Your task to perform on an android device: Show me productivity apps on the Play Store Image 0: 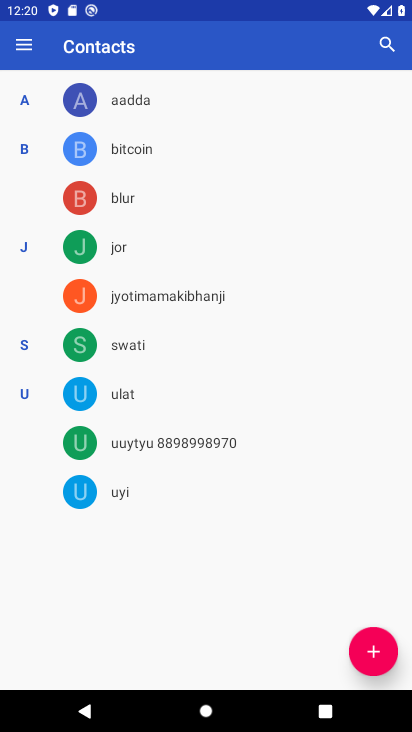
Step 0: press home button
Your task to perform on an android device: Show me productivity apps on the Play Store Image 1: 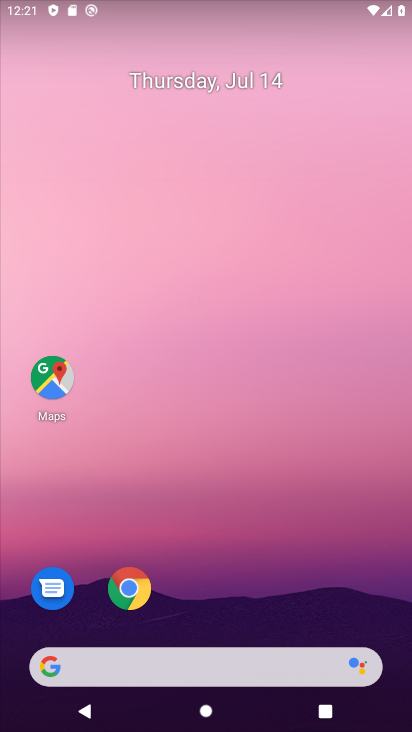
Step 1: drag from (213, 656) to (285, 109)
Your task to perform on an android device: Show me productivity apps on the Play Store Image 2: 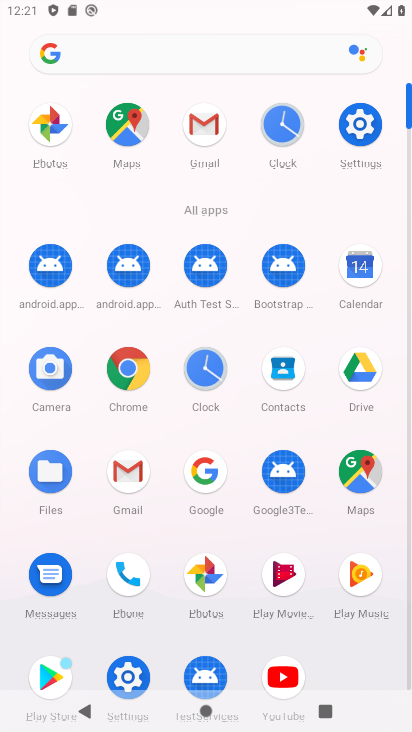
Step 2: click (53, 674)
Your task to perform on an android device: Show me productivity apps on the Play Store Image 3: 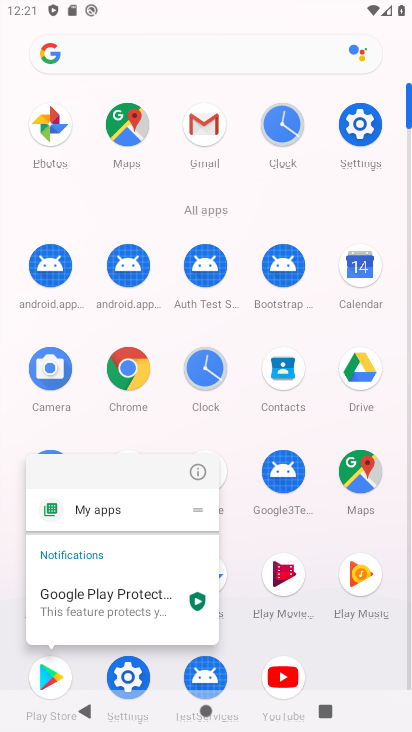
Step 3: click (39, 675)
Your task to perform on an android device: Show me productivity apps on the Play Store Image 4: 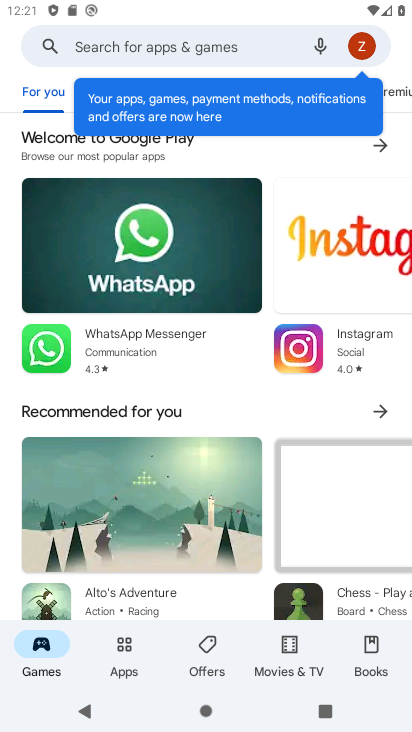
Step 4: click (129, 646)
Your task to perform on an android device: Show me productivity apps on the Play Store Image 5: 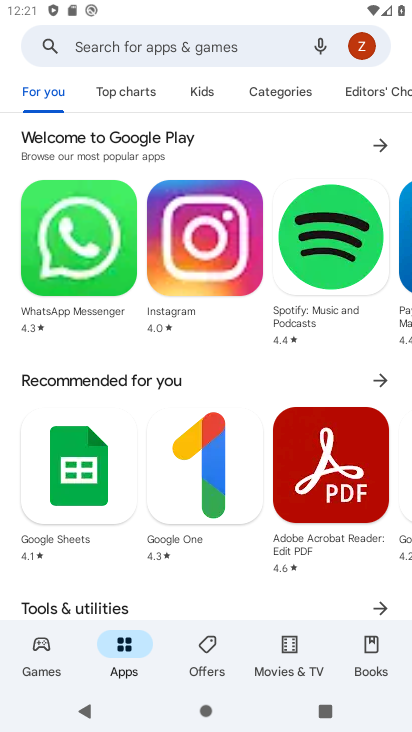
Step 5: click (285, 91)
Your task to perform on an android device: Show me productivity apps on the Play Store Image 6: 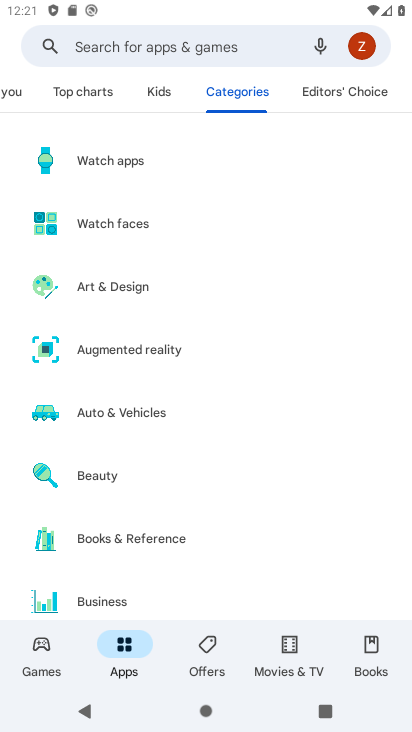
Step 6: drag from (211, 535) to (286, 126)
Your task to perform on an android device: Show me productivity apps on the Play Store Image 7: 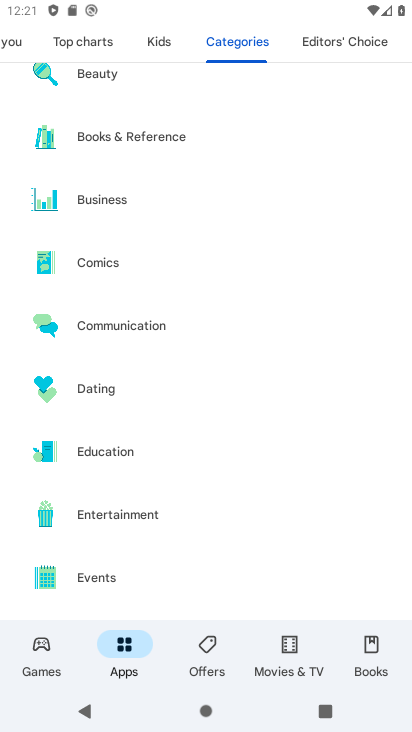
Step 7: drag from (223, 519) to (291, 41)
Your task to perform on an android device: Show me productivity apps on the Play Store Image 8: 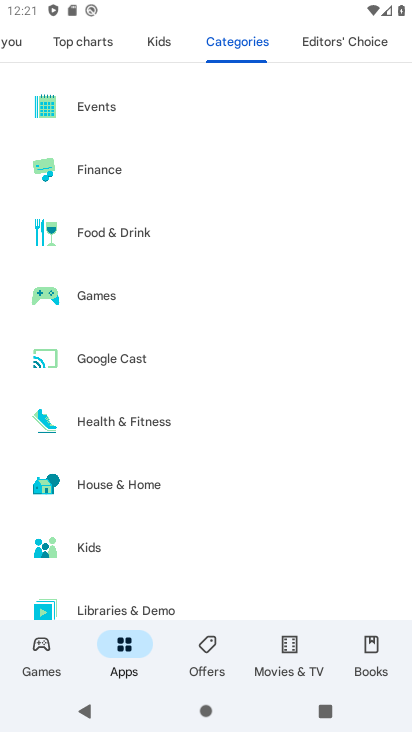
Step 8: drag from (265, 476) to (314, 43)
Your task to perform on an android device: Show me productivity apps on the Play Store Image 9: 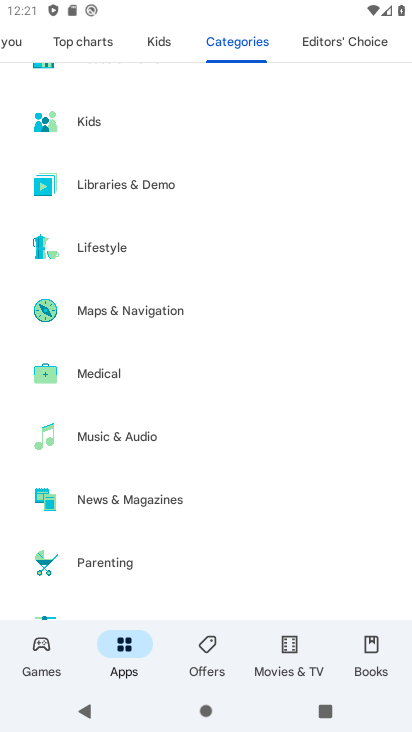
Step 9: drag from (276, 481) to (328, 58)
Your task to perform on an android device: Show me productivity apps on the Play Store Image 10: 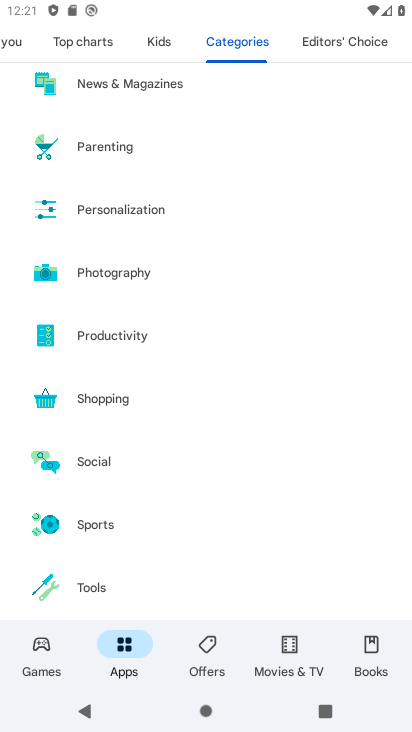
Step 10: click (126, 333)
Your task to perform on an android device: Show me productivity apps on the Play Store Image 11: 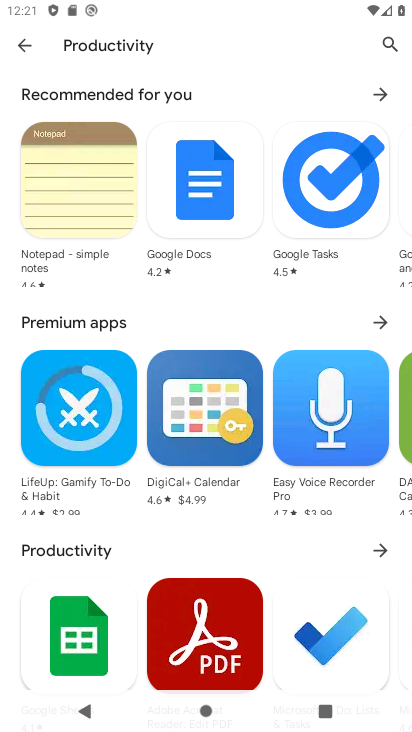
Step 11: task complete